Your task to perform on an android device: make emails show in primary in the gmail app Image 0: 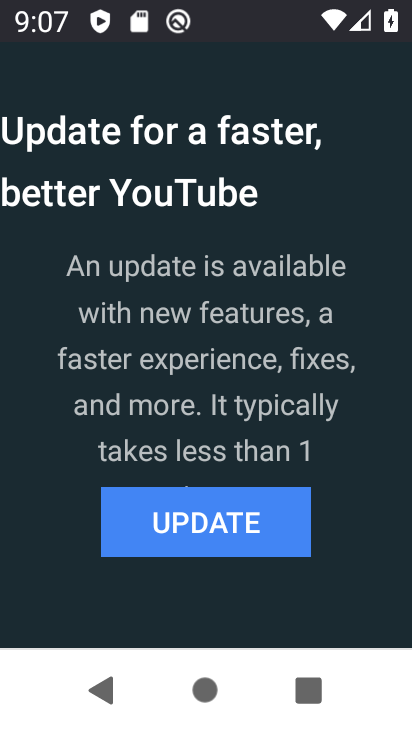
Step 0: press home button
Your task to perform on an android device: make emails show in primary in the gmail app Image 1: 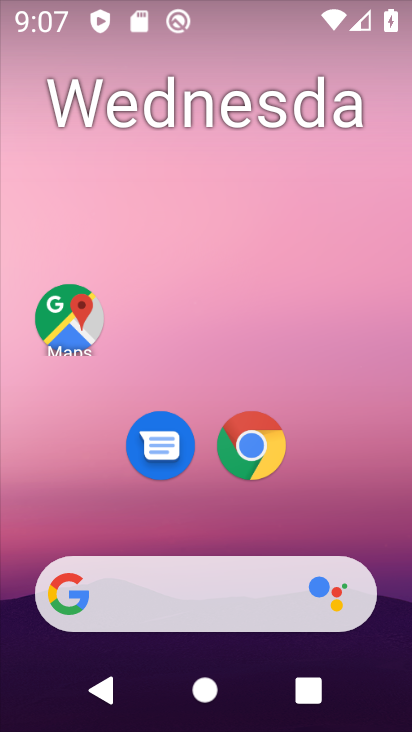
Step 1: drag from (180, 538) to (280, 46)
Your task to perform on an android device: make emails show in primary in the gmail app Image 2: 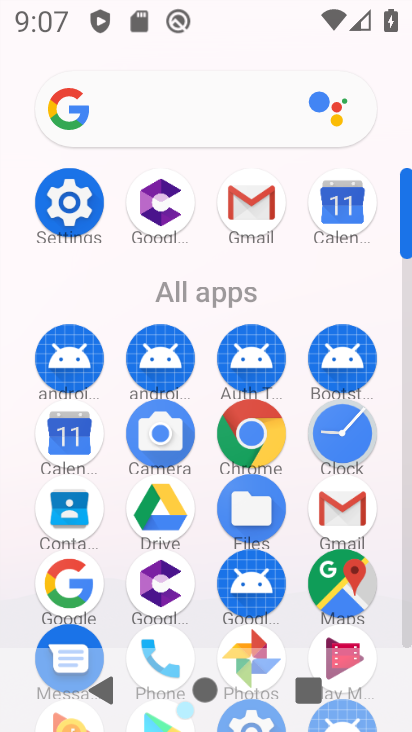
Step 2: click (242, 199)
Your task to perform on an android device: make emails show in primary in the gmail app Image 3: 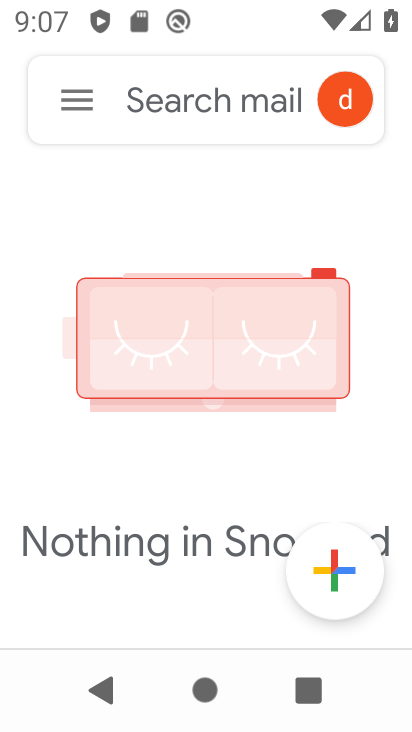
Step 3: click (72, 99)
Your task to perform on an android device: make emails show in primary in the gmail app Image 4: 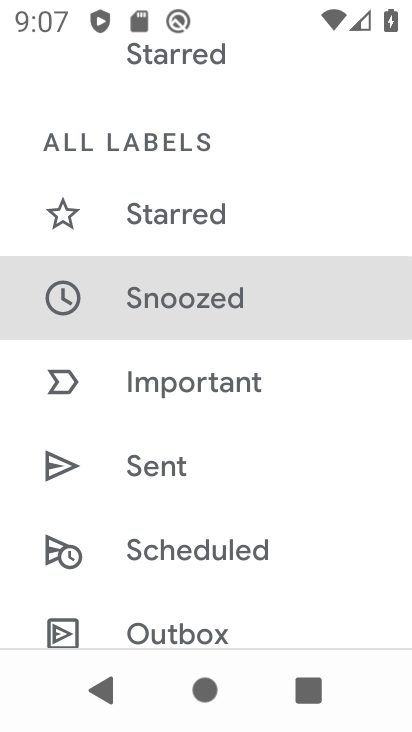
Step 4: drag from (187, 575) to (260, 107)
Your task to perform on an android device: make emails show in primary in the gmail app Image 5: 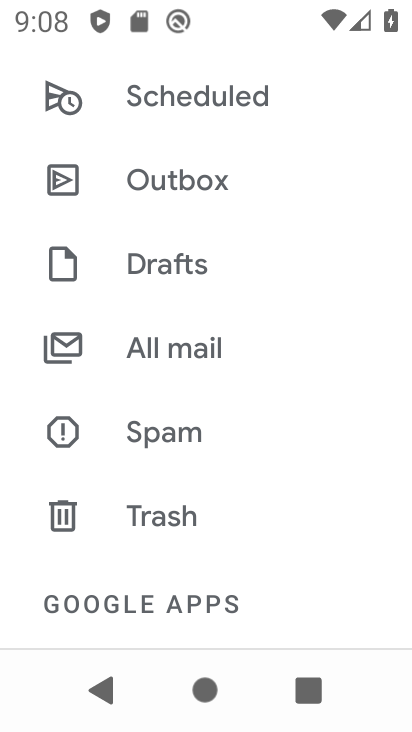
Step 5: drag from (244, 152) to (164, 611)
Your task to perform on an android device: make emails show in primary in the gmail app Image 6: 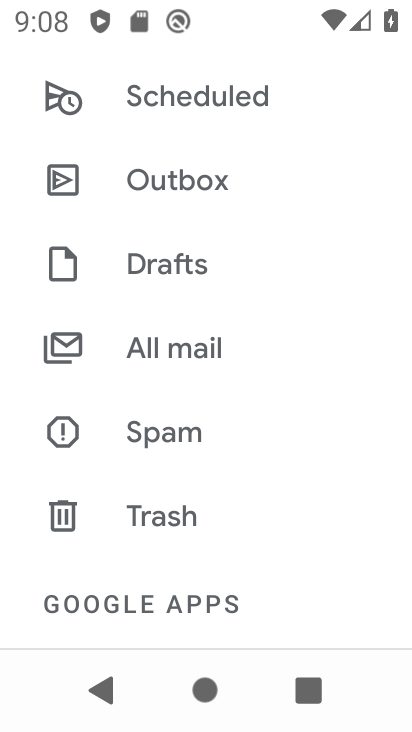
Step 6: drag from (148, 175) to (148, 617)
Your task to perform on an android device: make emails show in primary in the gmail app Image 7: 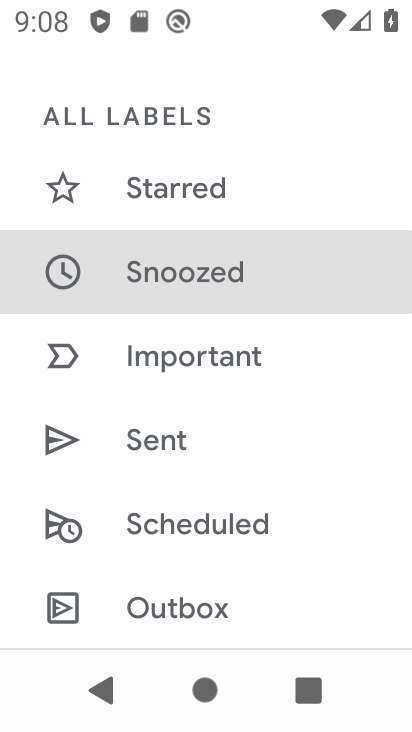
Step 7: drag from (174, 200) to (305, 101)
Your task to perform on an android device: make emails show in primary in the gmail app Image 8: 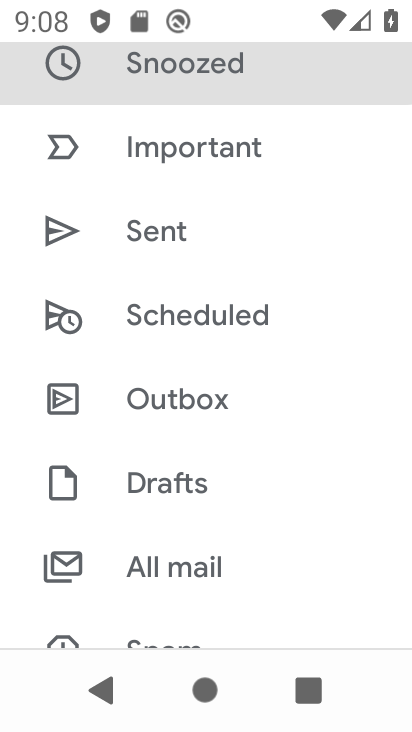
Step 8: drag from (210, 566) to (296, 60)
Your task to perform on an android device: make emails show in primary in the gmail app Image 9: 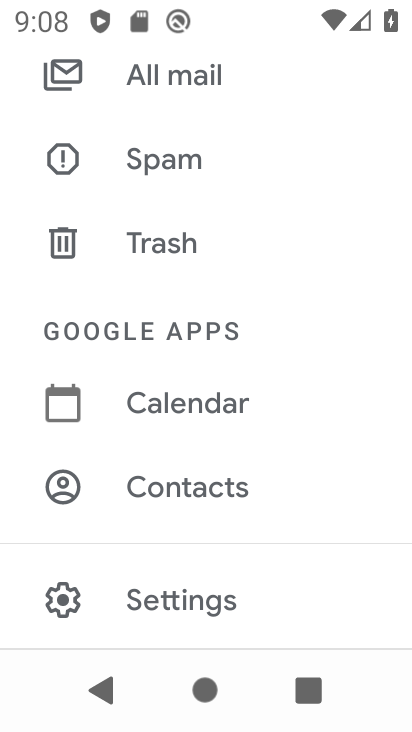
Step 9: drag from (185, 451) to (247, 38)
Your task to perform on an android device: make emails show in primary in the gmail app Image 10: 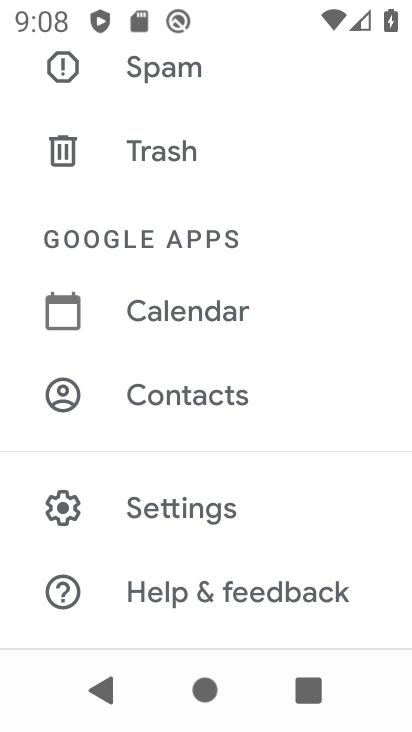
Step 10: click (190, 519)
Your task to perform on an android device: make emails show in primary in the gmail app Image 11: 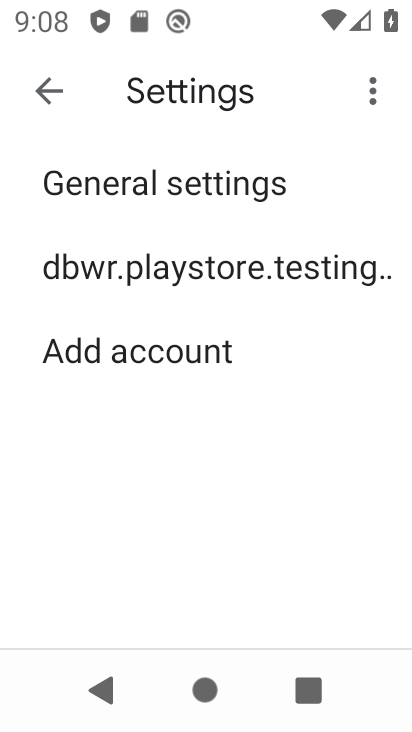
Step 11: click (148, 269)
Your task to perform on an android device: make emails show in primary in the gmail app Image 12: 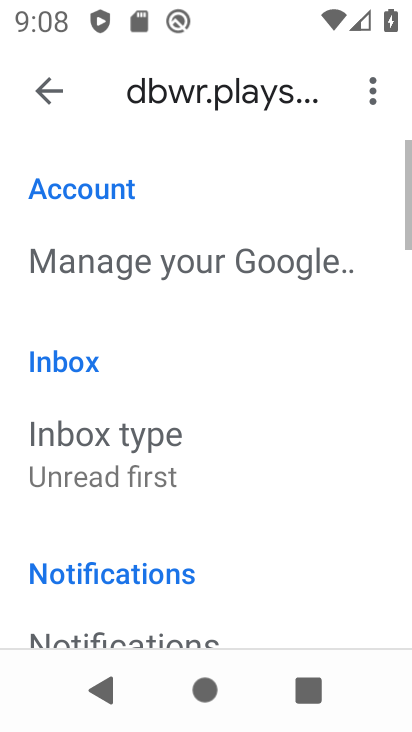
Step 12: task complete